Your task to perform on an android device: open sync settings in chrome Image 0: 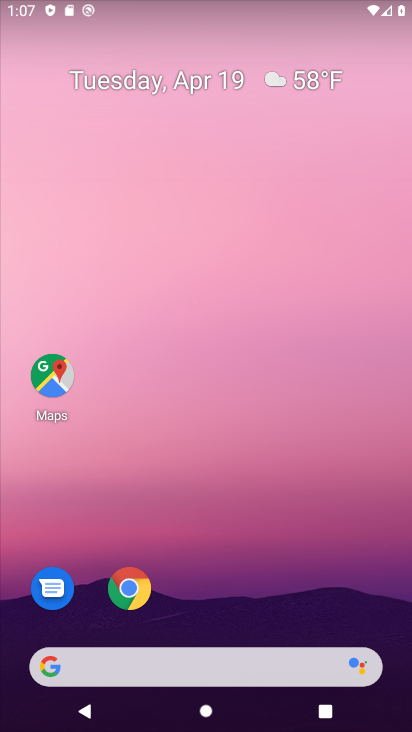
Step 0: click (118, 574)
Your task to perform on an android device: open sync settings in chrome Image 1: 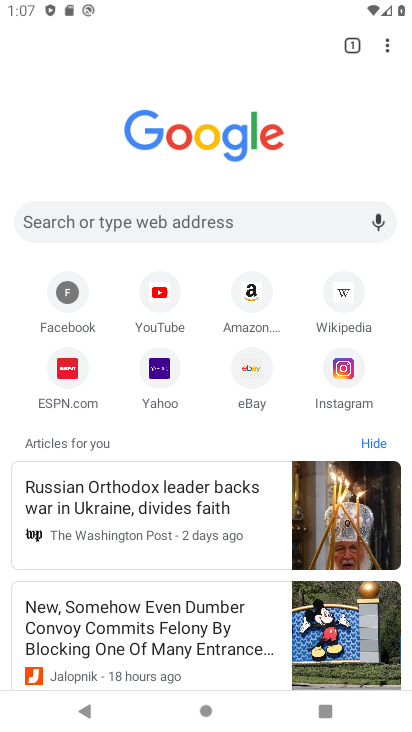
Step 1: click (384, 49)
Your task to perform on an android device: open sync settings in chrome Image 2: 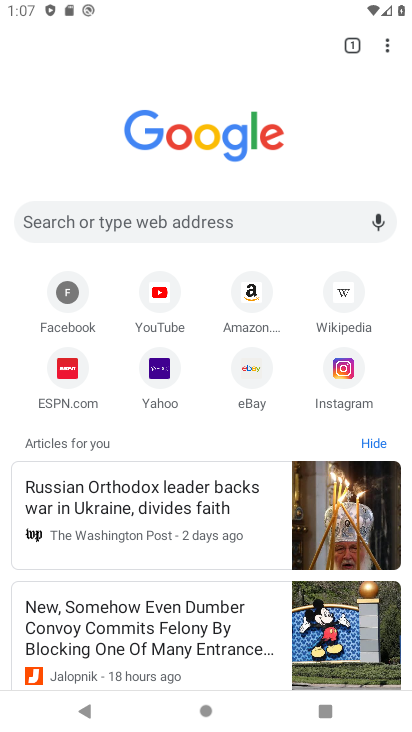
Step 2: click (386, 49)
Your task to perform on an android device: open sync settings in chrome Image 3: 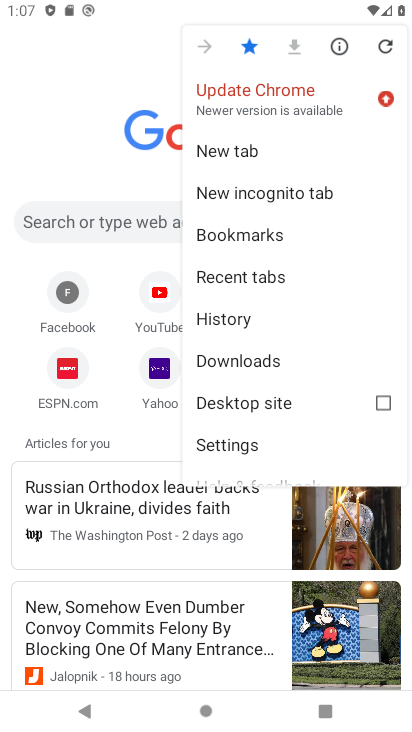
Step 3: click (256, 437)
Your task to perform on an android device: open sync settings in chrome Image 4: 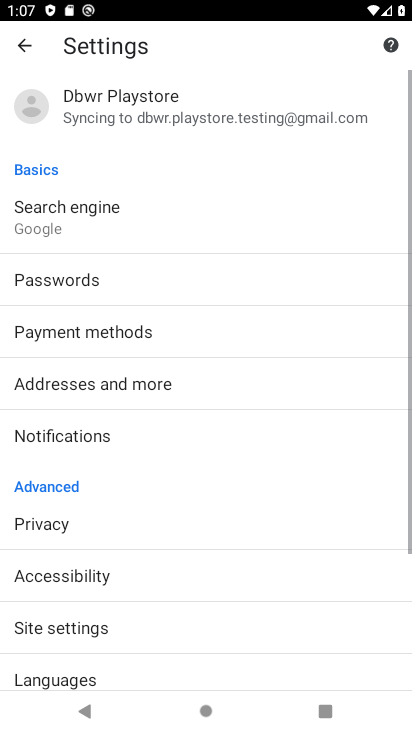
Step 4: click (150, 117)
Your task to perform on an android device: open sync settings in chrome Image 5: 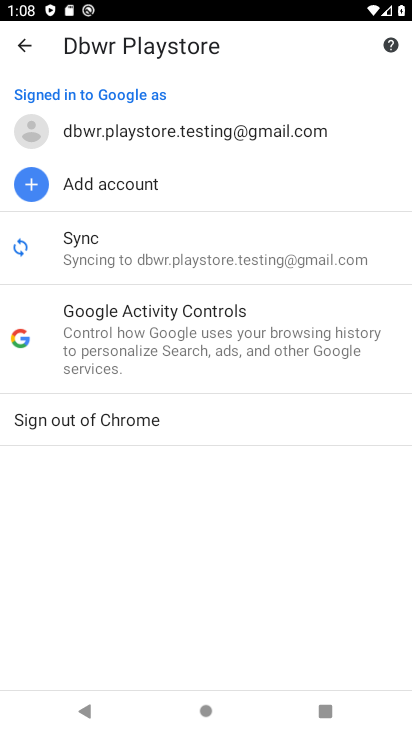
Step 5: click (195, 231)
Your task to perform on an android device: open sync settings in chrome Image 6: 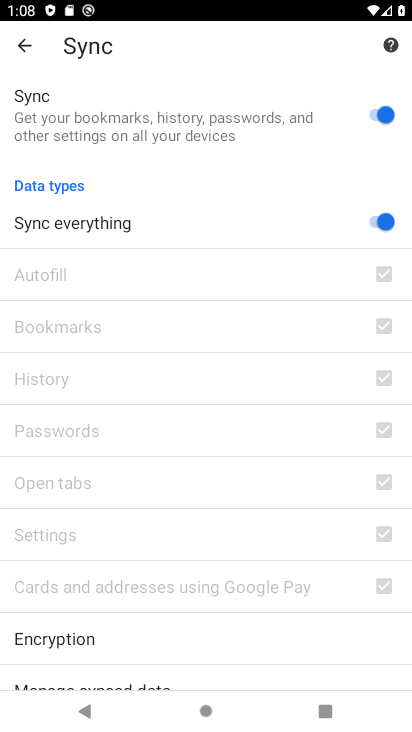
Step 6: task complete